Your task to perform on an android device: change the clock display to show seconds Image 0: 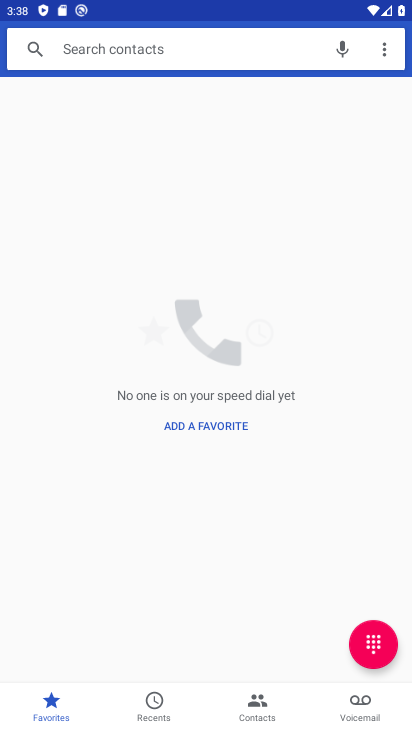
Step 0: press home button
Your task to perform on an android device: change the clock display to show seconds Image 1: 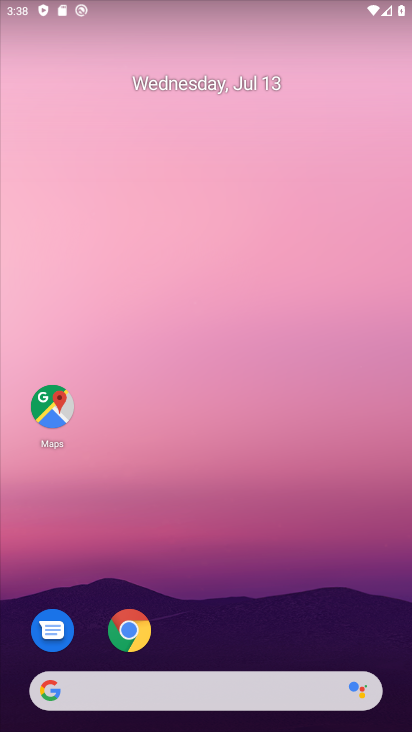
Step 1: drag from (312, 593) to (324, 40)
Your task to perform on an android device: change the clock display to show seconds Image 2: 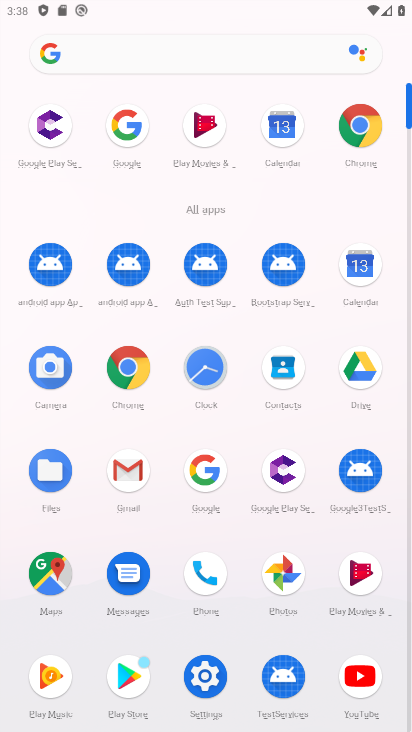
Step 2: click (190, 360)
Your task to perform on an android device: change the clock display to show seconds Image 3: 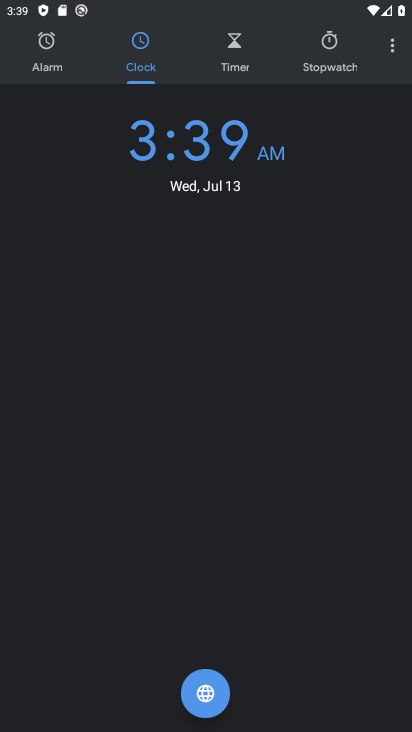
Step 3: click (398, 52)
Your task to perform on an android device: change the clock display to show seconds Image 4: 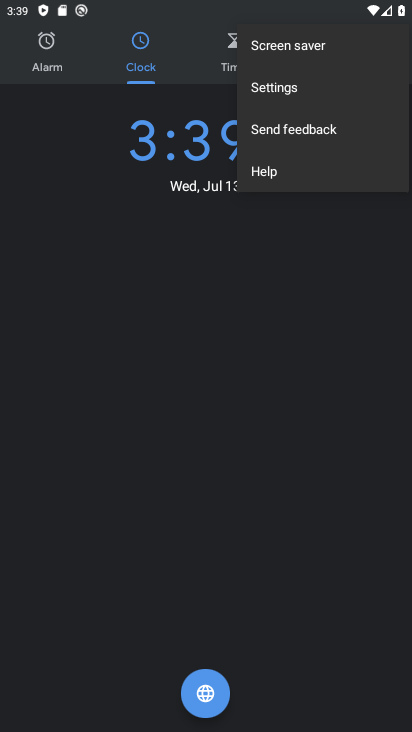
Step 4: click (301, 94)
Your task to perform on an android device: change the clock display to show seconds Image 5: 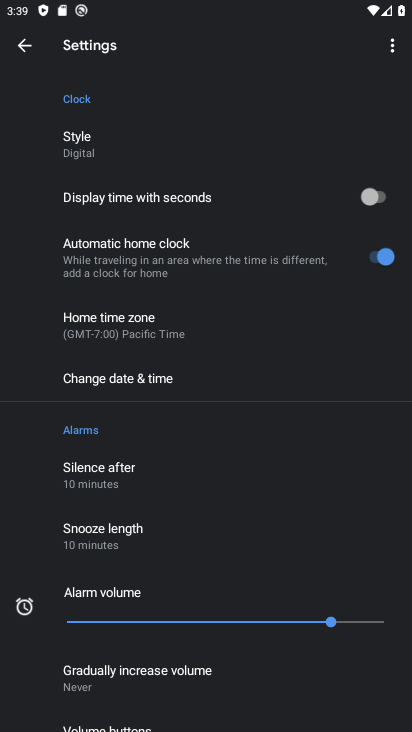
Step 5: click (372, 205)
Your task to perform on an android device: change the clock display to show seconds Image 6: 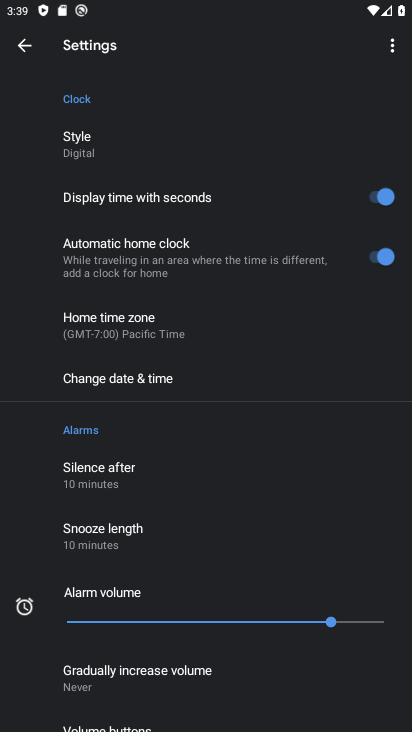
Step 6: task complete